Your task to perform on an android device: What's on my calendar today? Image 0: 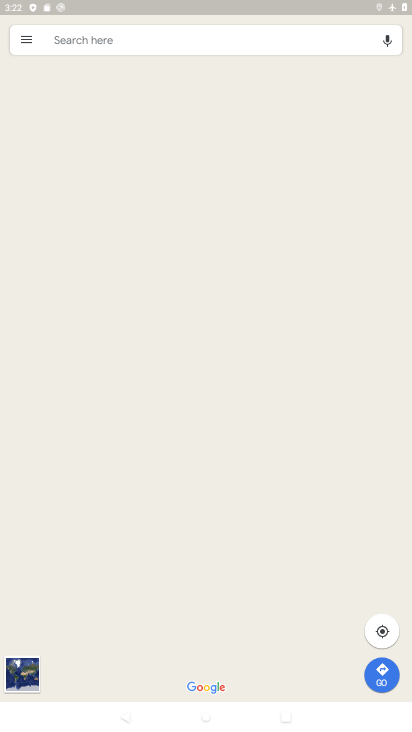
Step 0: press home button
Your task to perform on an android device: What's on my calendar today? Image 1: 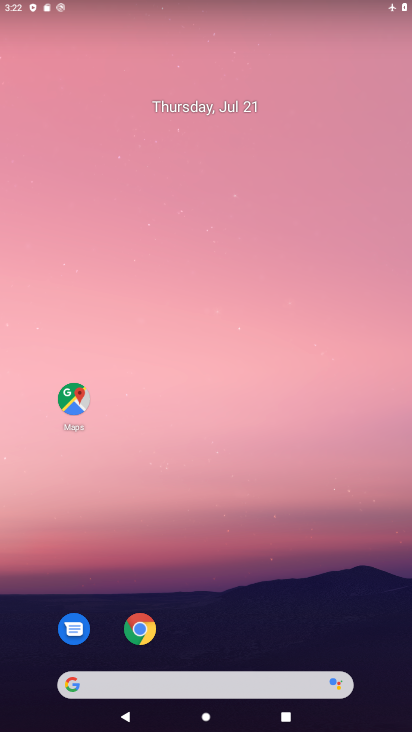
Step 1: drag from (218, 546) to (226, 39)
Your task to perform on an android device: What's on my calendar today? Image 2: 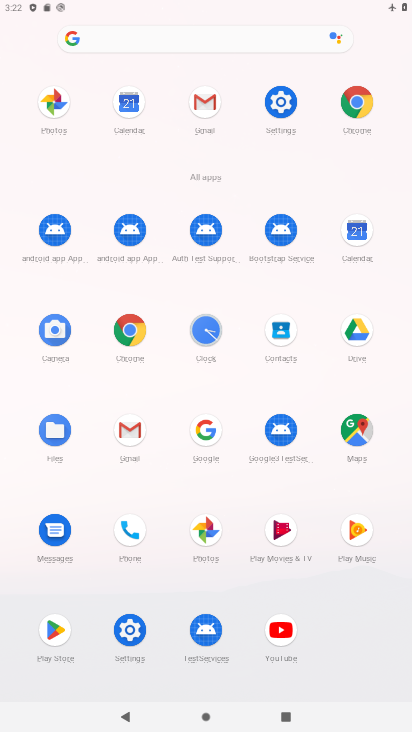
Step 2: click (354, 222)
Your task to perform on an android device: What's on my calendar today? Image 3: 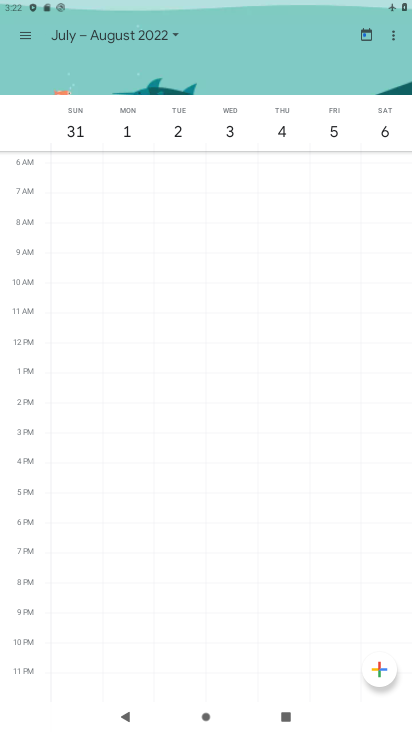
Step 3: click (26, 37)
Your task to perform on an android device: What's on my calendar today? Image 4: 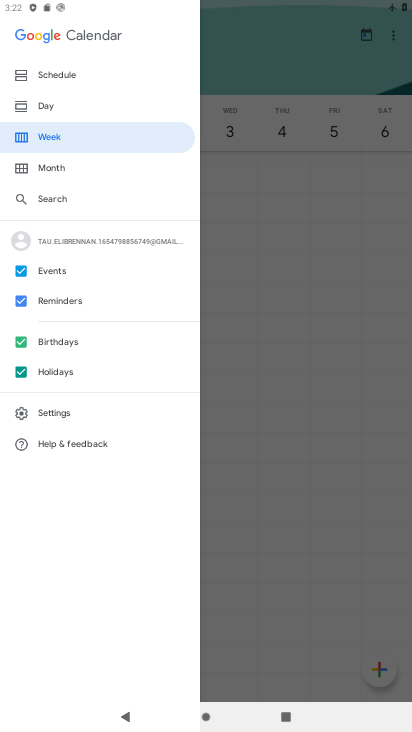
Step 4: click (59, 100)
Your task to perform on an android device: What's on my calendar today? Image 5: 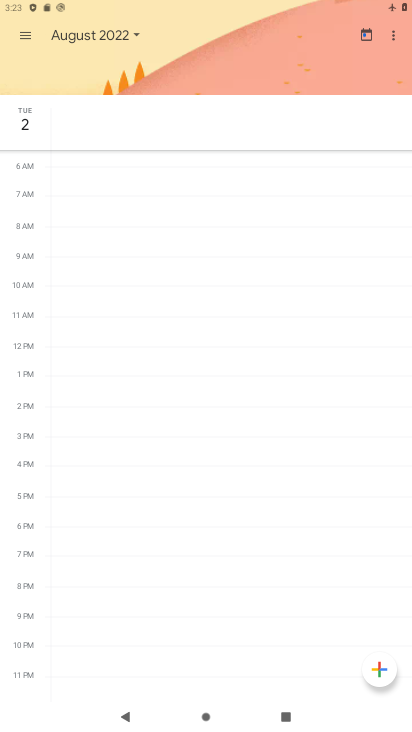
Step 5: click (127, 34)
Your task to perform on an android device: What's on my calendar today? Image 6: 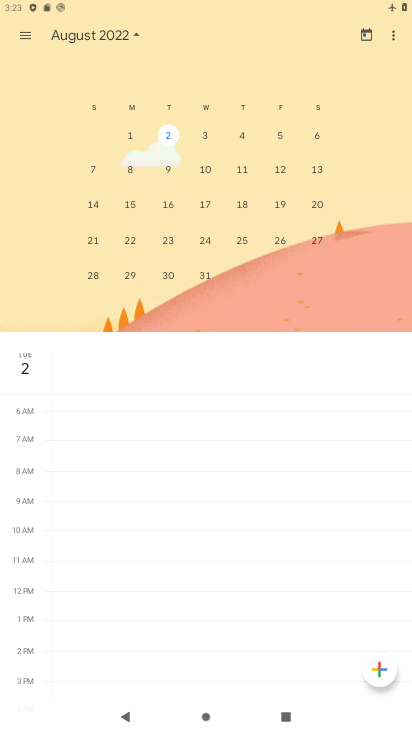
Step 6: drag from (124, 170) to (409, 205)
Your task to perform on an android device: What's on my calendar today? Image 7: 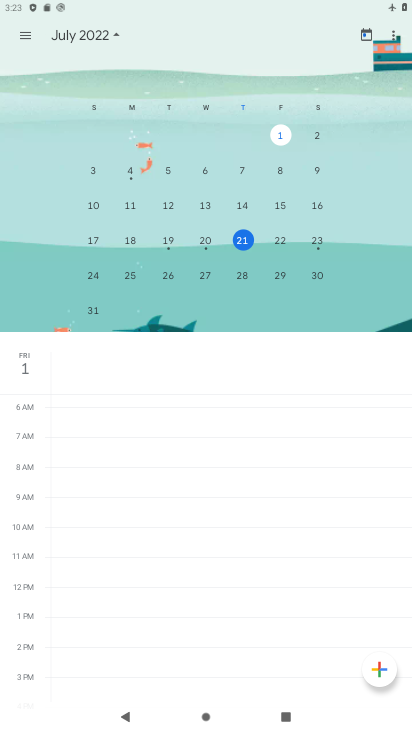
Step 7: click (242, 238)
Your task to perform on an android device: What's on my calendar today? Image 8: 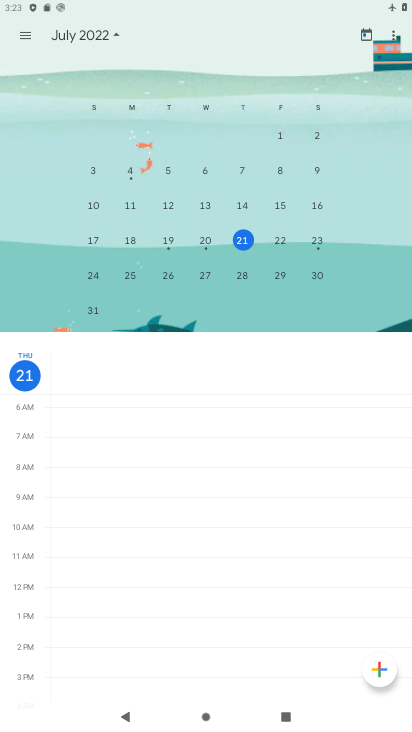
Step 8: task complete